Your task to perform on an android device: Open Chrome and go to settings Image 0: 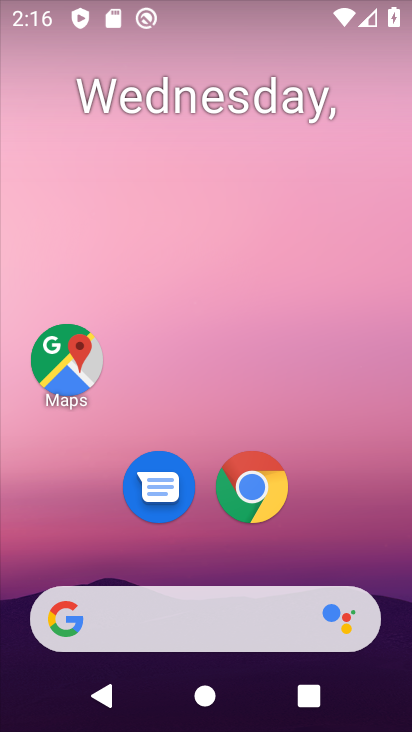
Step 0: click (254, 488)
Your task to perform on an android device: Open Chrome and go to settings Image 1: 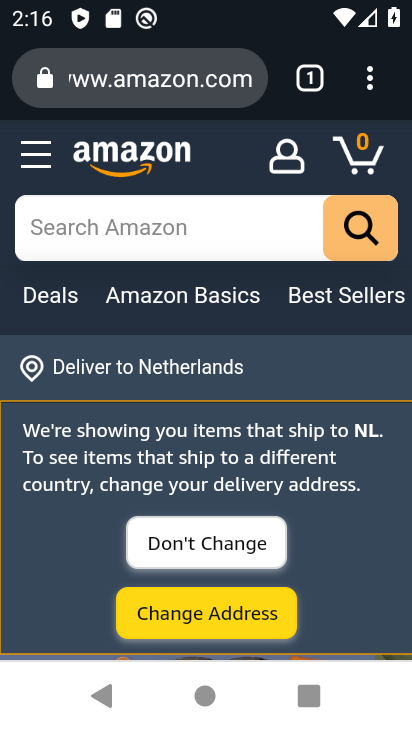
Step 1: click (375, 76)
Your task to perform on an android device: Open Chrome and go to settings Image 2: 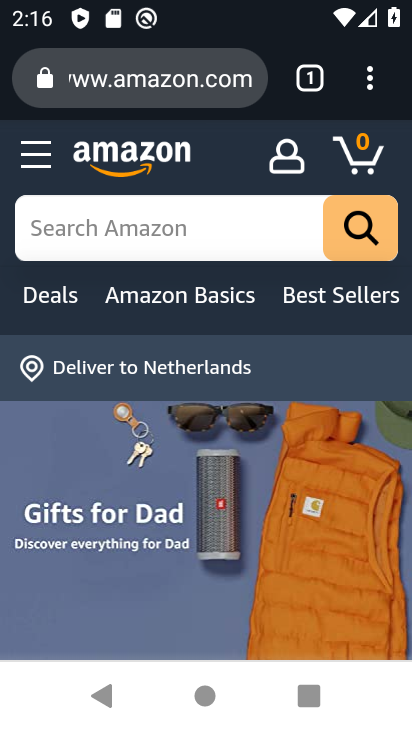
Step 2: click (380, 79)
Your task to perform on an android device: Open Chrome and go to settings Image 3: 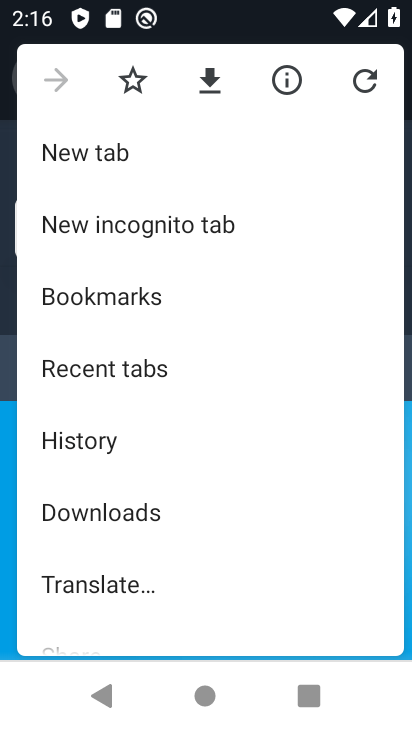
Step 3: drag from (129, 611) to (140, 185)
Your task to perform on an android device: Open Chrome and go to settings Image 4: 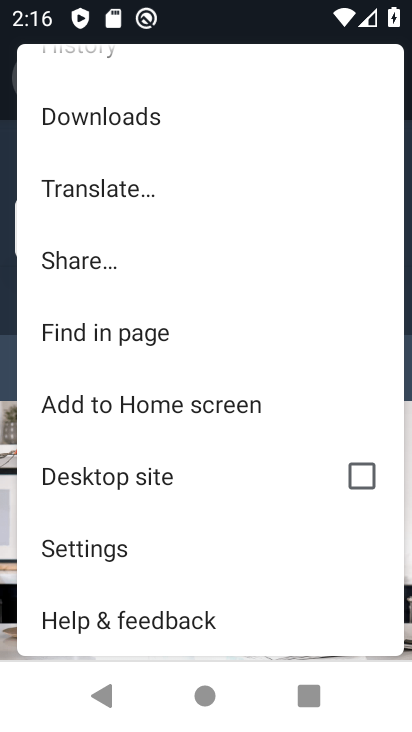
Step 4: click (131, 554)
Your task to perform on an android device: Open Chrome and go to settings Image 5: 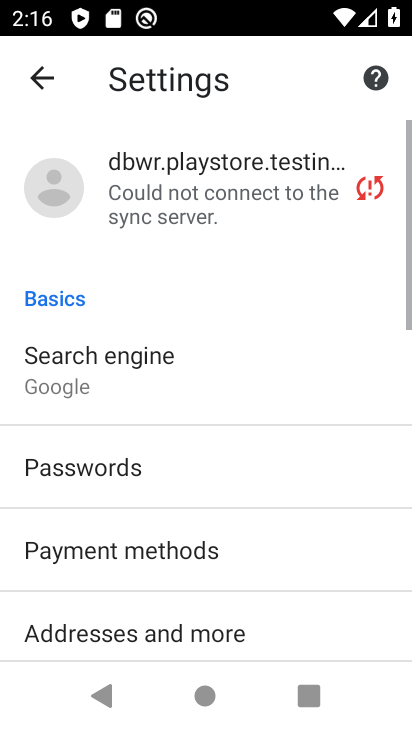
Step 5: task complete